Your task to perform on an android device: Search for "logitech g903" on target.com, select the first entry, and add it to the cart. Image 0: 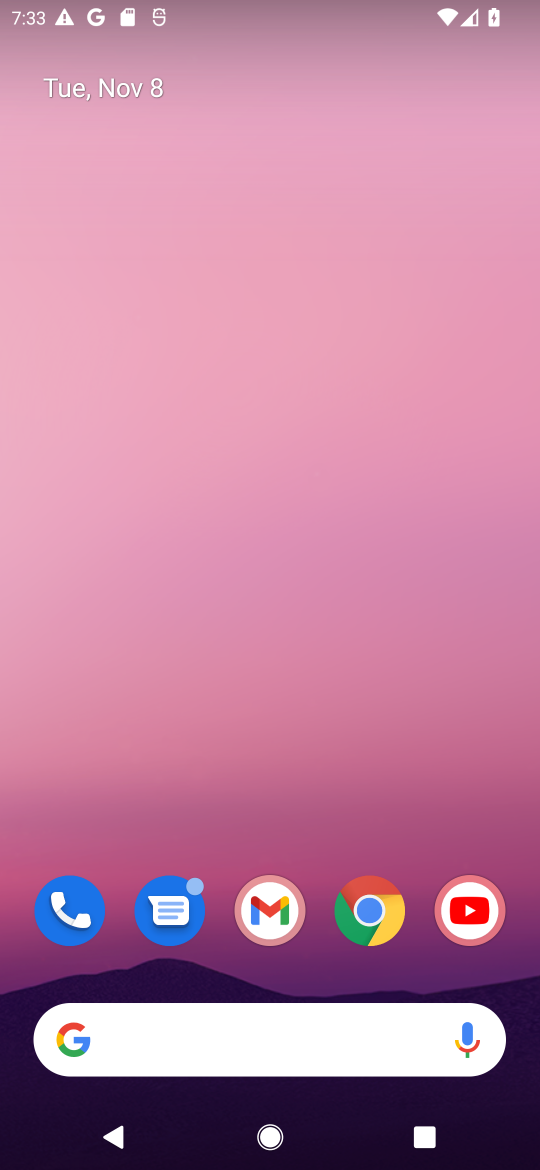
Step 0: click (362, 912)
Your task to perform on an android device: Search for "logitech g903" on target.com, select the first entry, and add it to the cart. Image 1: 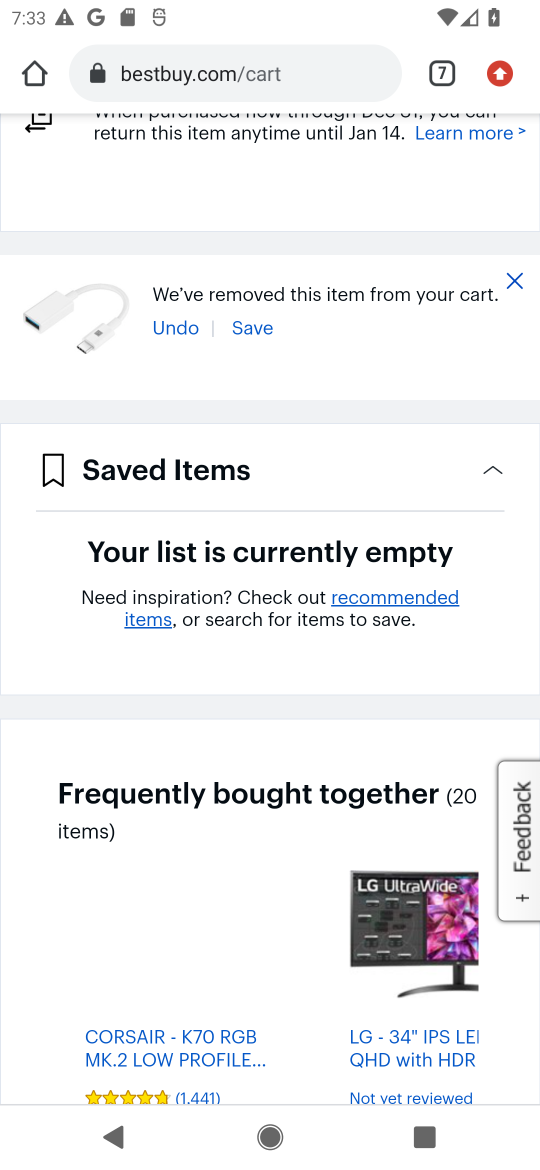
Step 1: click (444, 81)
Your task to perform on an android device: Search for "logitech g903" on target.com, select the first entry, and add it to the cart. Image 2: 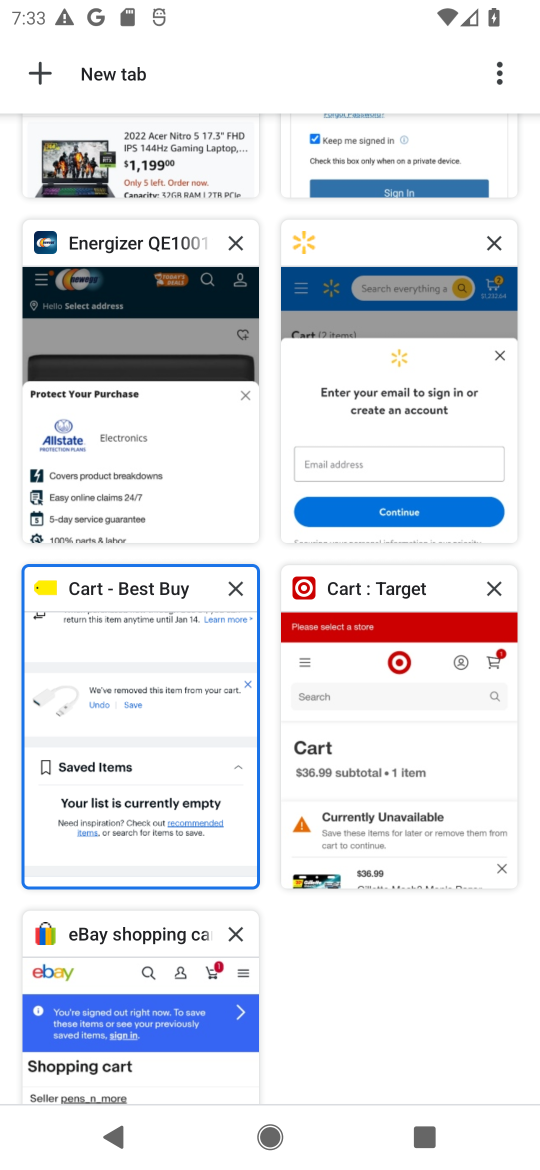
Step 2: click (346, 627)
Your task to perform on an android device: Search for "logitech g903" on target.com, select the first entry, and add it to the cart. Image 3: 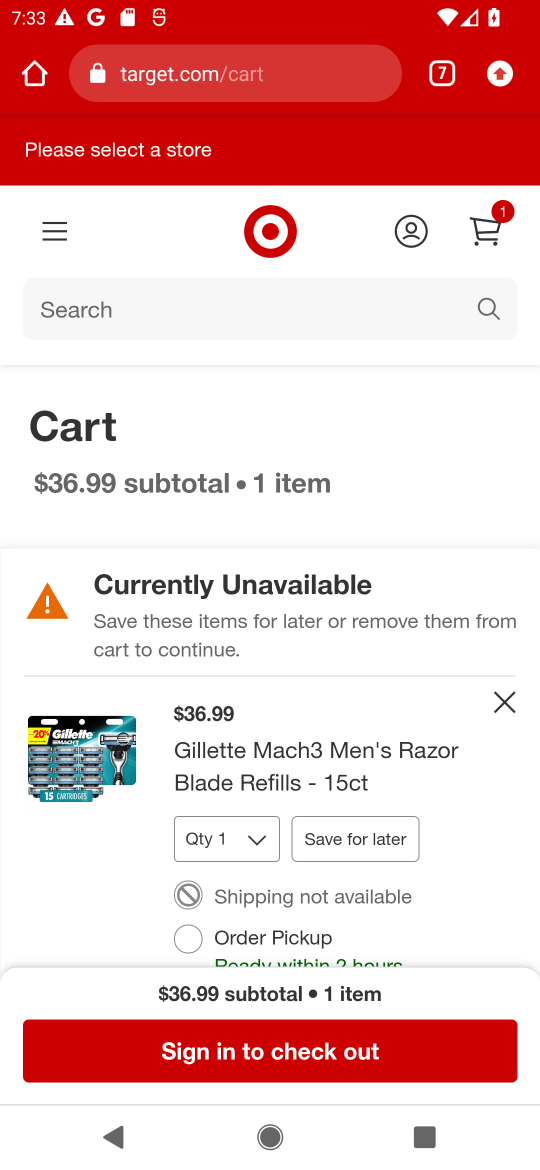
Step 3: click (150, 304)
Your task to perform on an android device: Search for "logitech g903" on target.com, select the first entry, and add it to the cart. Image 4: 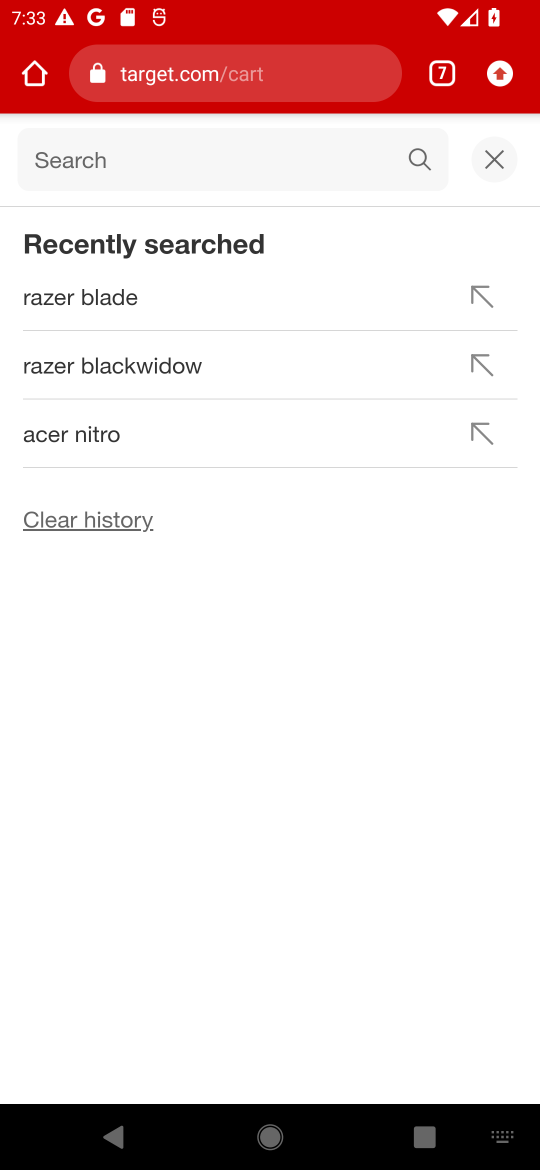
Step 4: type "logitech g903"
Your task to perform on an android device: Search for "logitech g903" on target.com, select the first entry, and add it to the cart. Image 5: 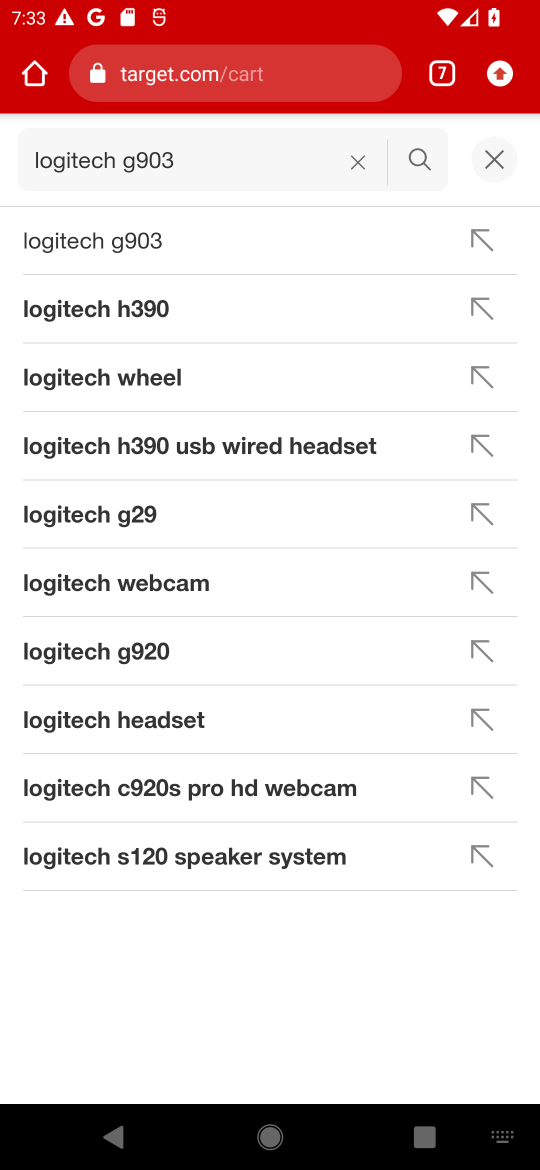
Step 5: click (135, 244)
Your task to perform on an android device: Search for "logitech g903" on target.com, select the first entry, and add it to the cart. Image 6: 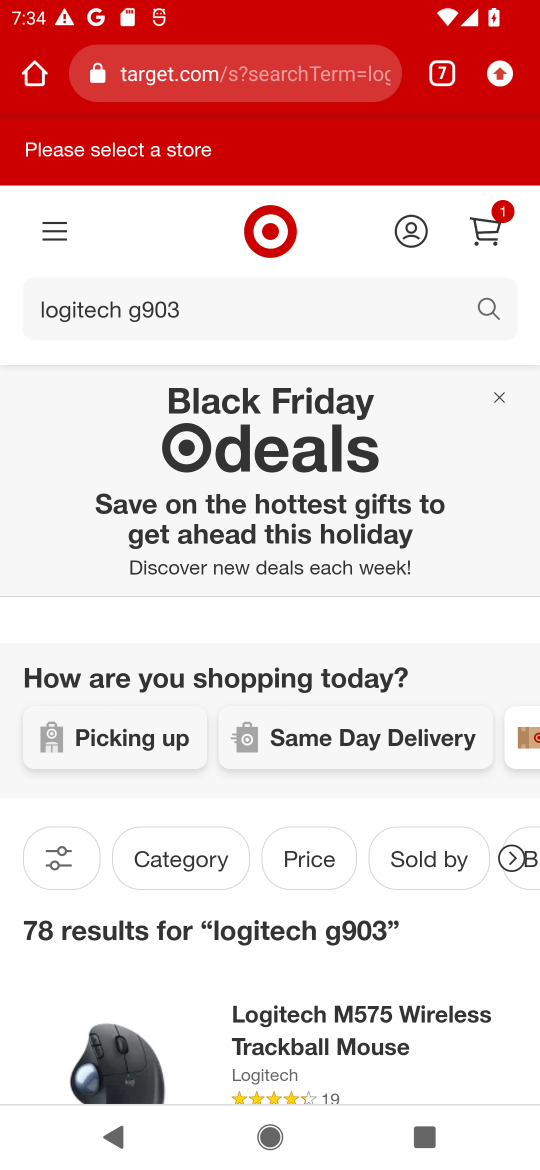
Step 6: drag from (308, 1054) to (451, 543)
Your task to perform on an android device: Search for "logitech g903" on target.com, select the first entry, and add it to the cart. Image 7: 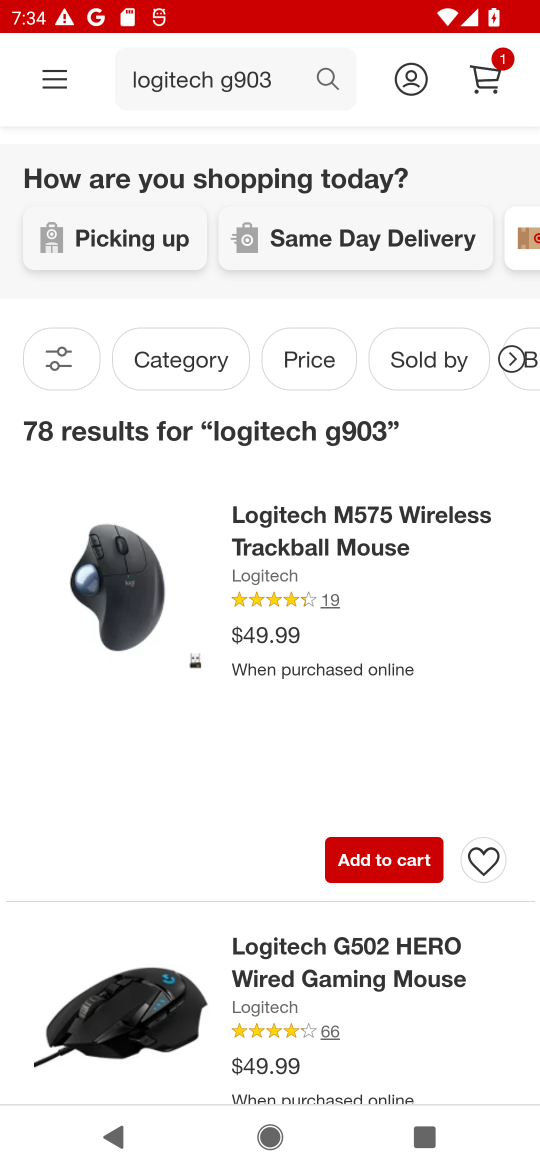
Step 7: drag from (340, 1025) to (432, 644)
Your task to perform on an android device: Search for "logitech g903" on target.com, select the first entry, and add it to the cart. Image 8: 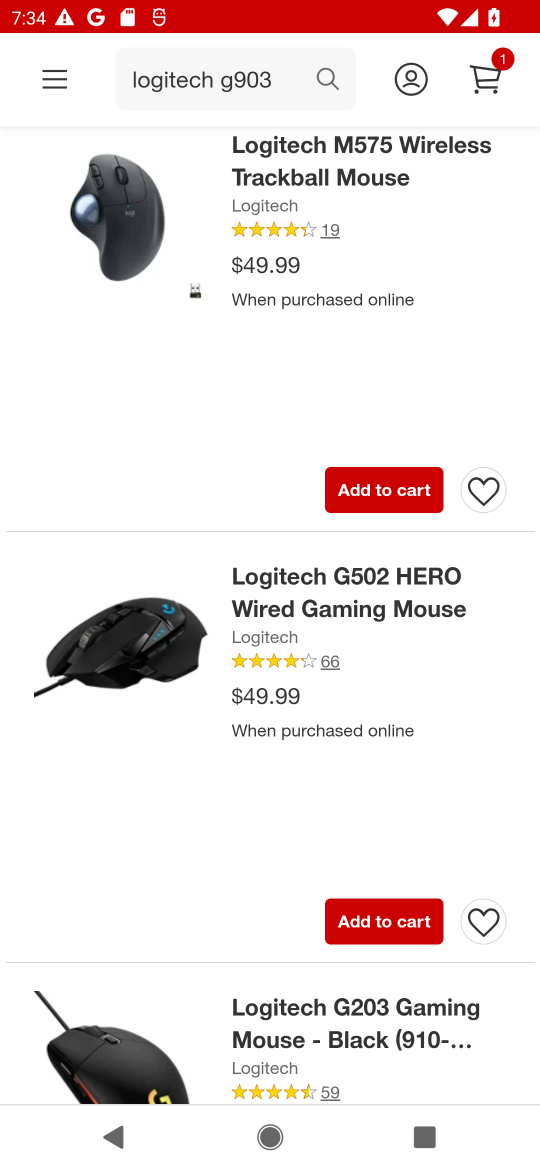
Step 8: click (400, 491)
Your task to perform on an android device: Search for "logitech g903" on target.com, select the first entry, and add it to the cart. Image 9: 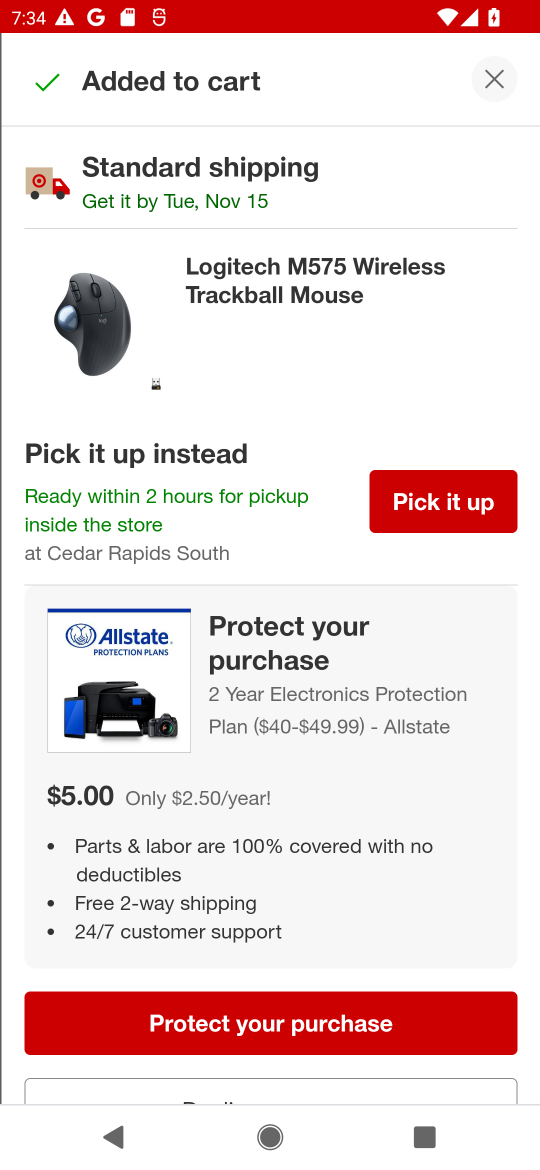
Step 9: task complete